Your task to perform on an android device: turn notification dots on Image 0: 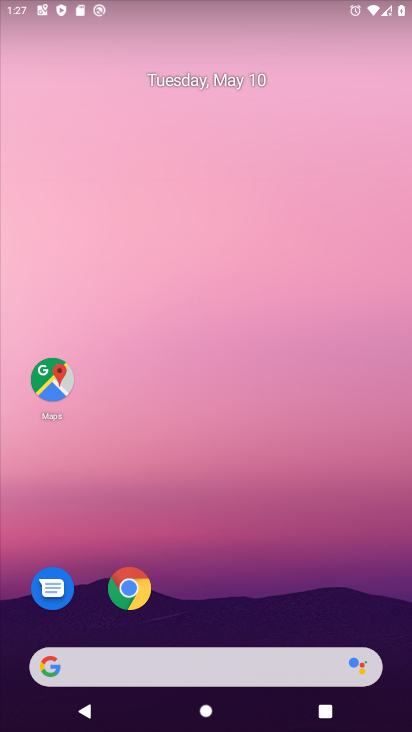
Step 0: drag from (279, 600) to (316, 107)
Your task to perform on an android device: turn notification dots on Image 1: 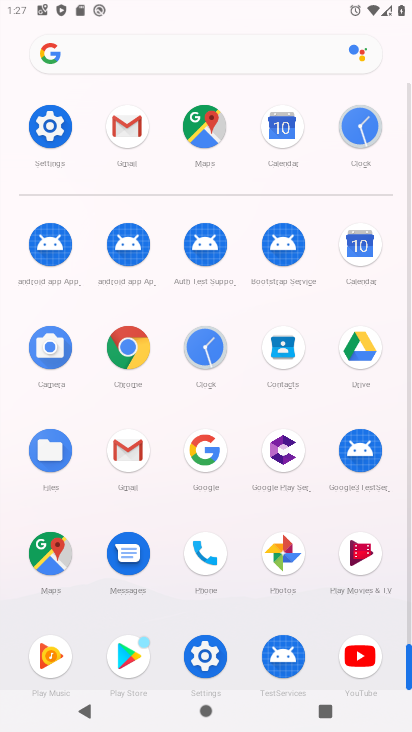
Step 1: click (41, 117)
Your task to perform on an android device: turn notification dots on Image 2: 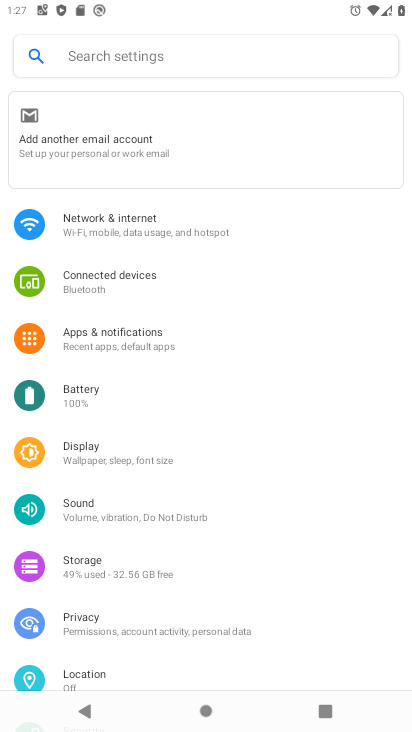
Step 2: click (162, 44)
Your task to perform on an android device: turn notification dots on Image 3: 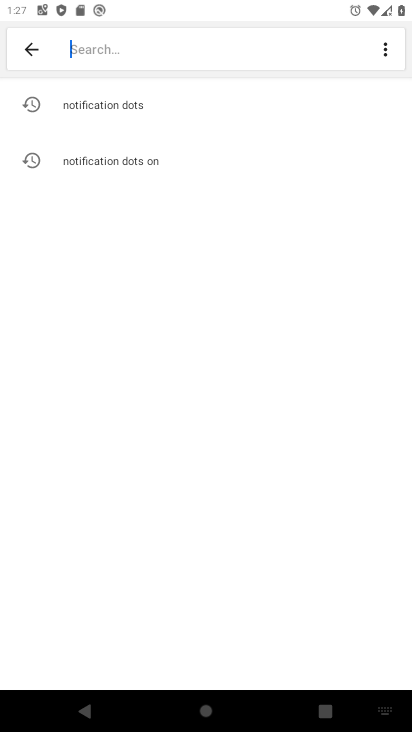
Step 3: click (149, 107)
Your task to perform on an android device: turn notification dots on Image 4: 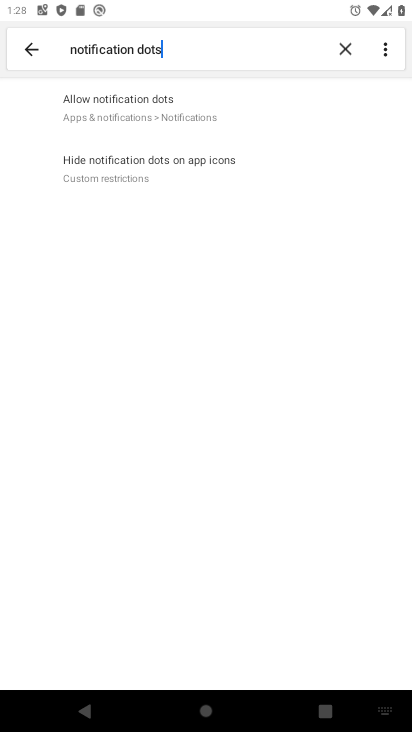
Step 4: click (155, 102)
Your task to perform on an android device: turn notification dots on Image 5: 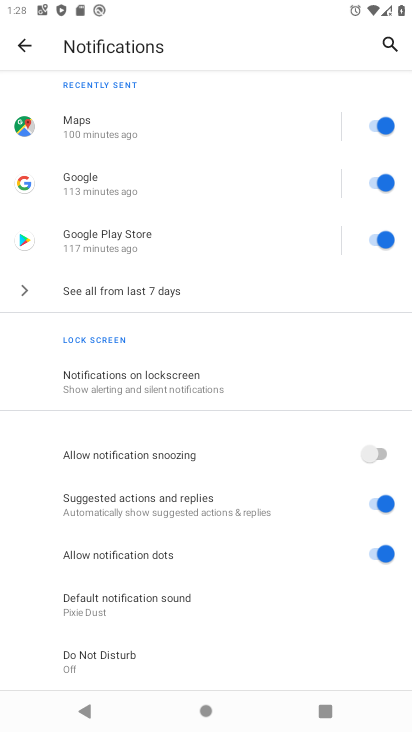
Step 5: task complete